Your task to perform on an android device: Open calendar and show me the third week of next month Image 0: 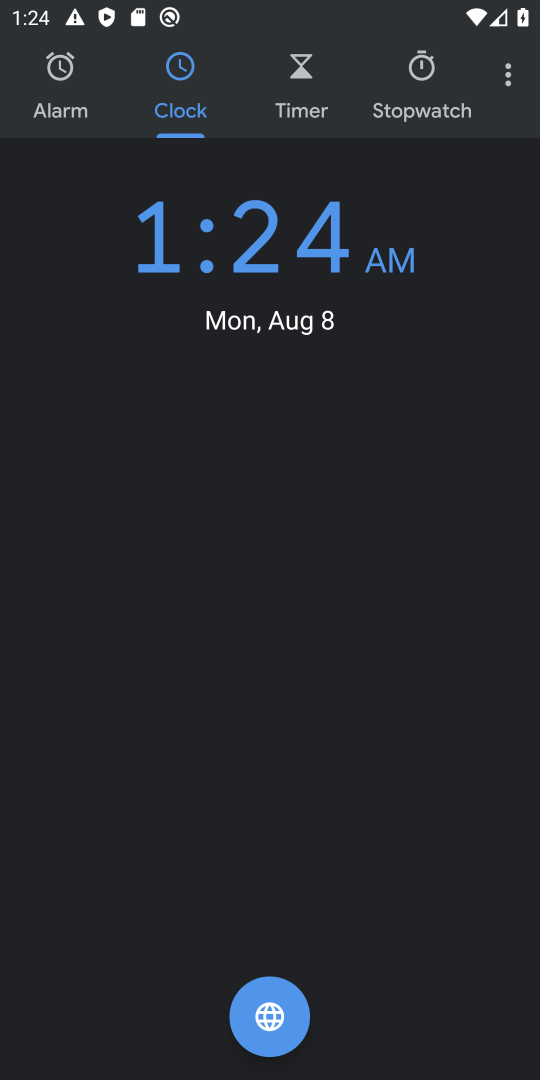
Step 0: press home button
Your task to perform on an android device: Open calendar and show me the third week of next month Image 1: 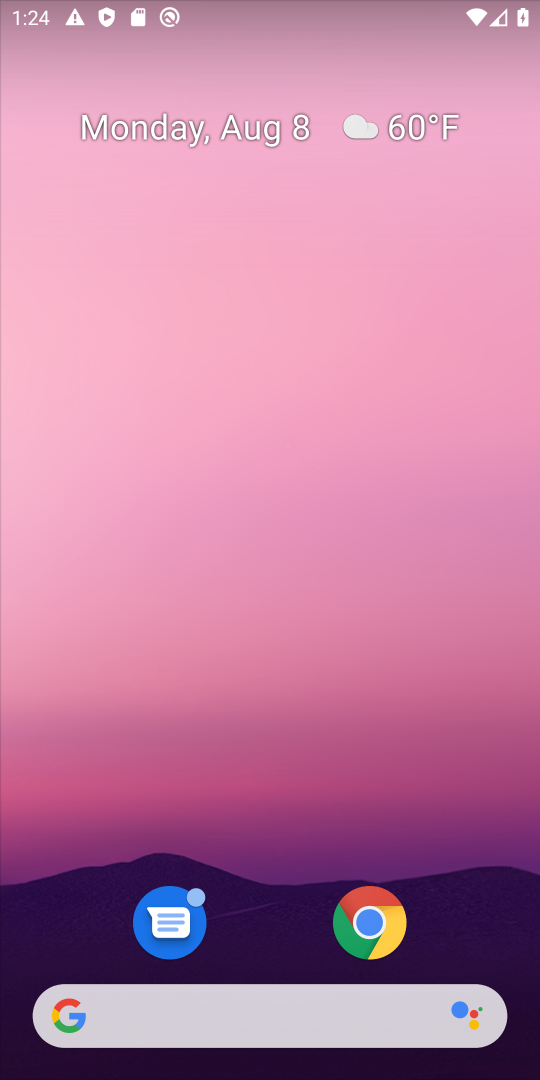
Step 1: drag from (465, 859) to (418, 211)
Your task to perform on an android device: Open calendar and show me the third week of next month Image 2: 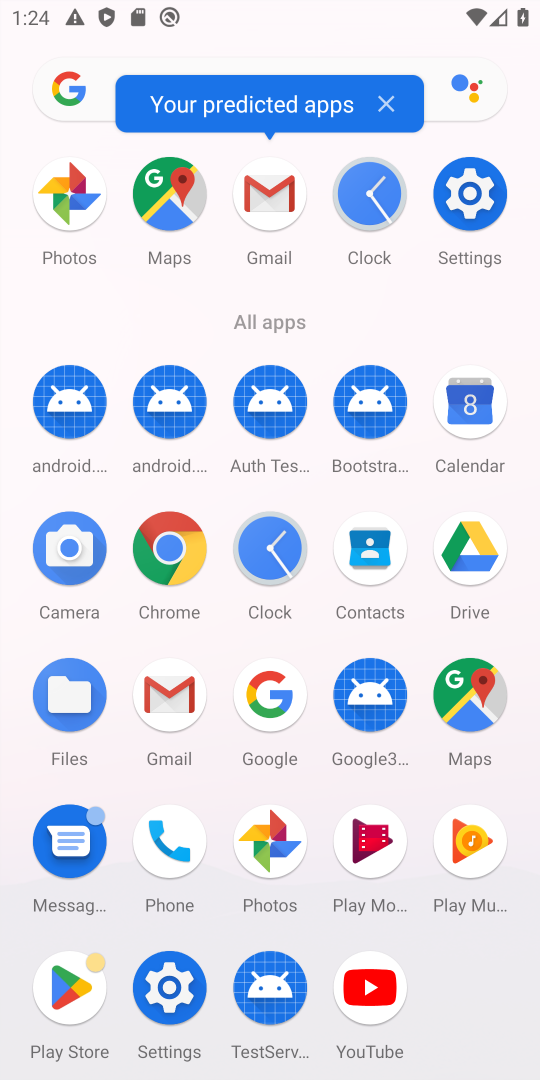
Step 2: click (485, 404)
Your task to perform on an android device: Open calendar and show me the third week of next month Image 3: 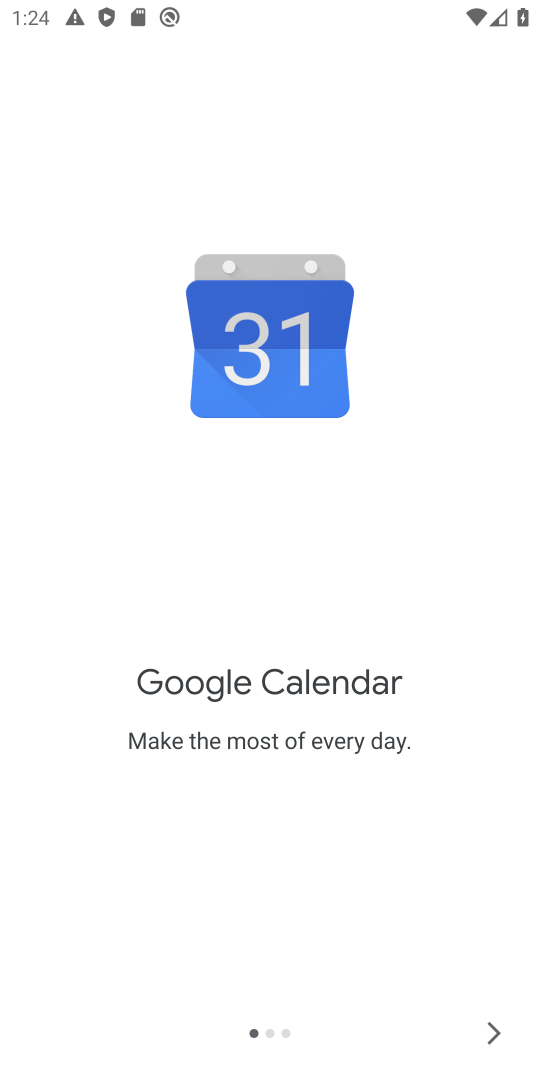
Step 3: click (506, 1033)
Your task to perform on an android device: Open calendar and show me the third week of next month Image 4: 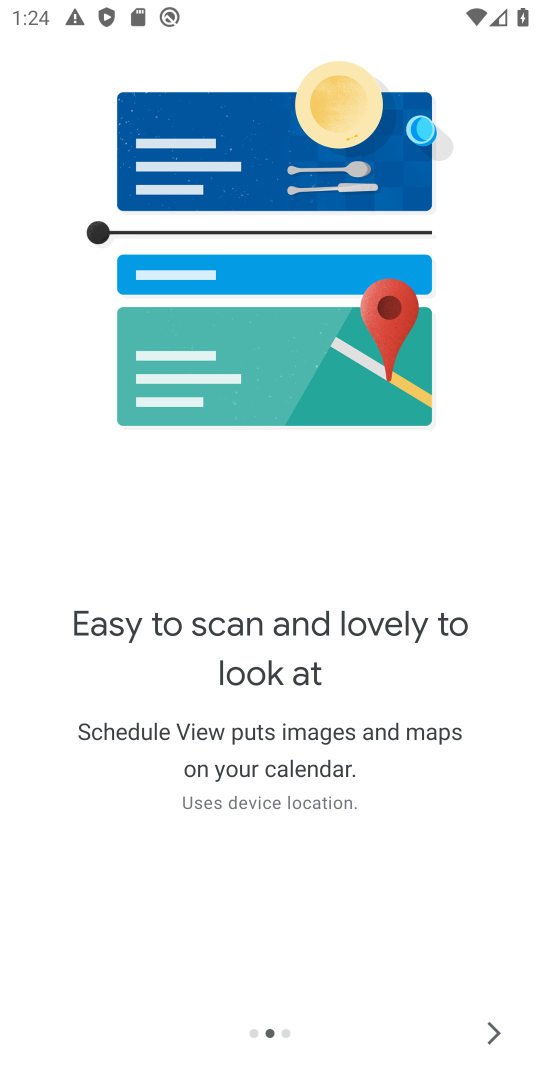
Step 4: click (491, 1038)
Your task to perform on an android device: Open calendar and show me the third week of next month Image 5: 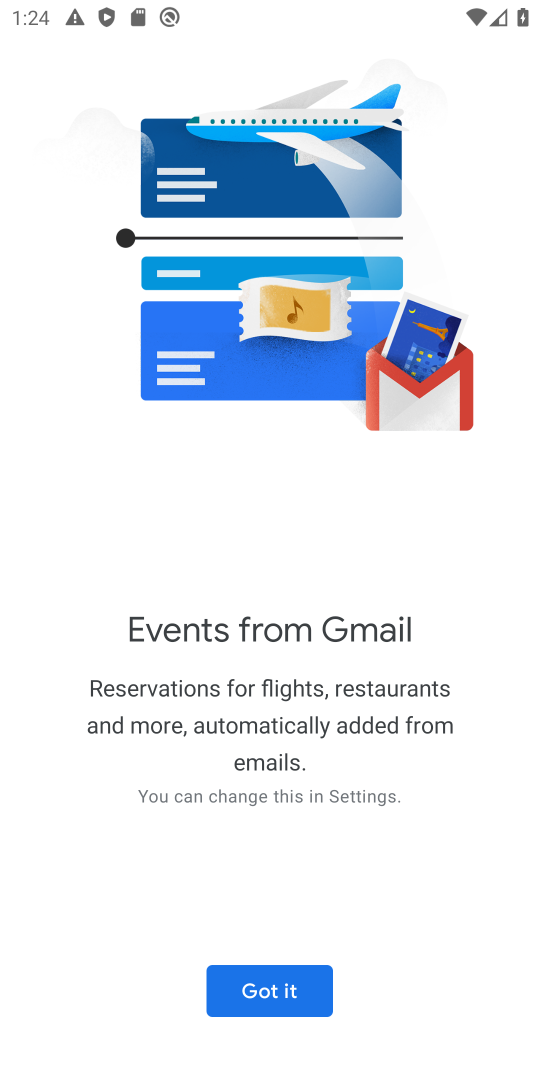
Step 5: click (277, 1001)
Your task to perform on an android device: Open calendar and show me the third week of next month Image 6: 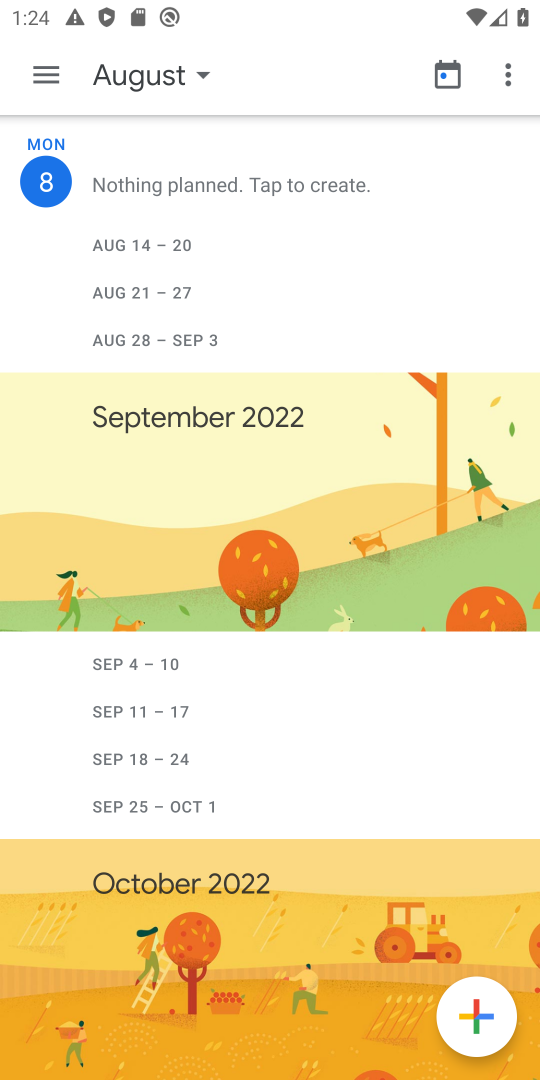
Step 6: click (114, 74)
Your task to perform on an android device: Open calendar and show me the third week of next month Image 7: 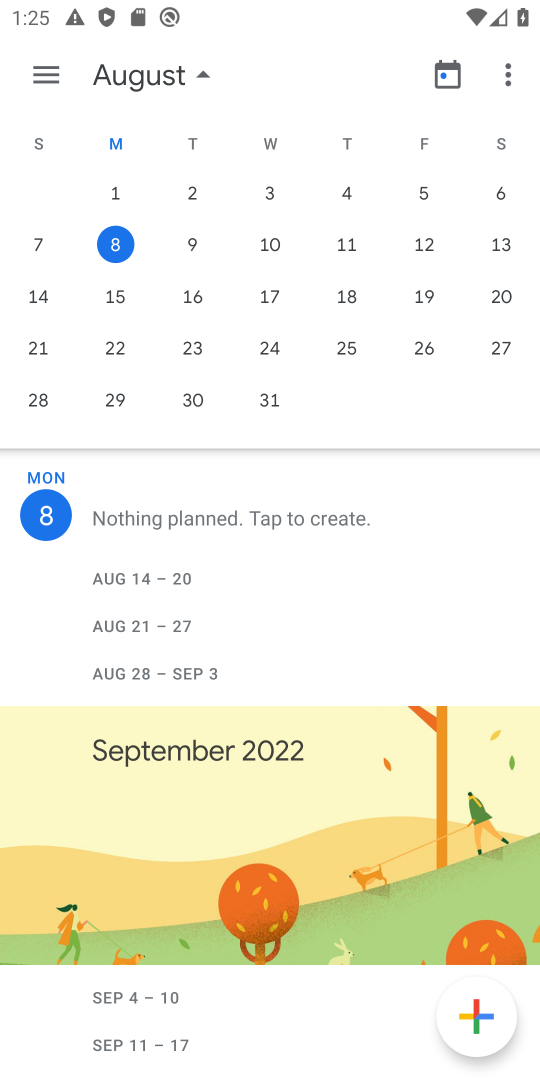
Step 7: drag from (466, 302) to (37, 323)
Your task to perform on an android device: Open calendar and show me the third week of next month Image 8: 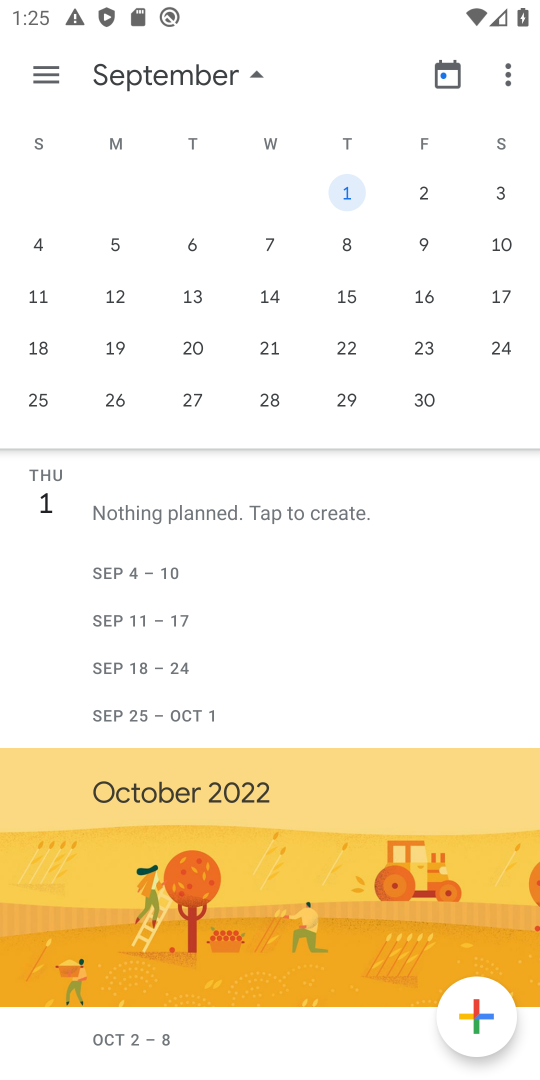
Step 8: click (189, 346)
Your task to perform on an android device: Open calendar and show me the third week of next month Image 9: 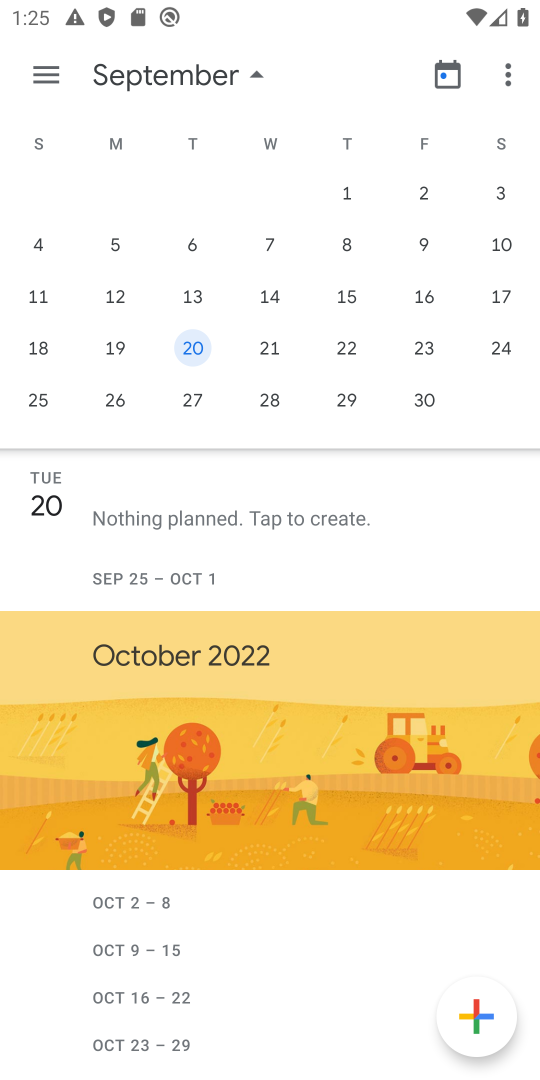
Step 9: click (43, 61)
Your task to perform on an android device: Open calendar and show me the third week of next month Image 10: 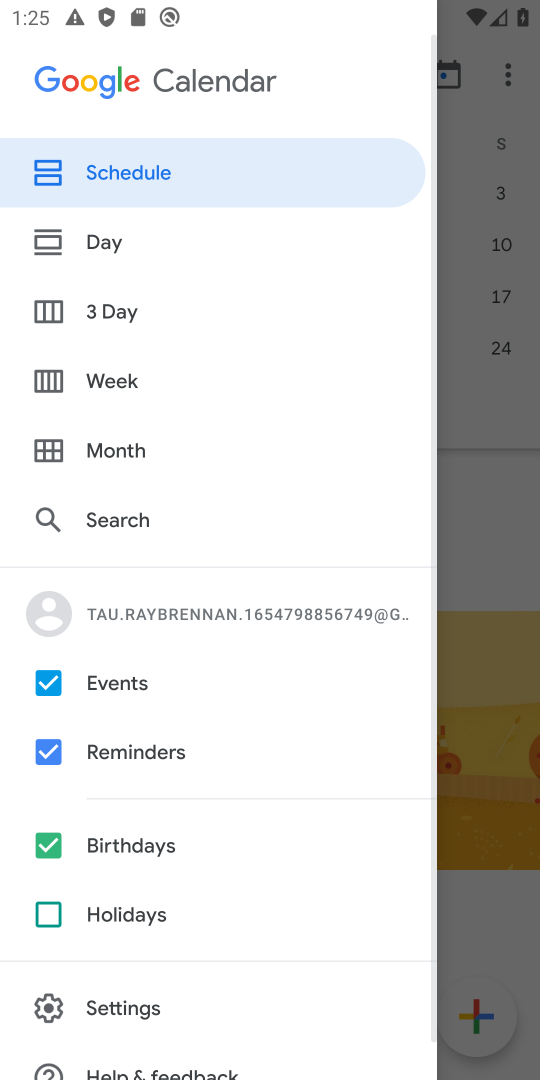
Step 10: click (129, 373)
Your task to perform on an android device: Open calendar and show me the third week of next month Image 11: 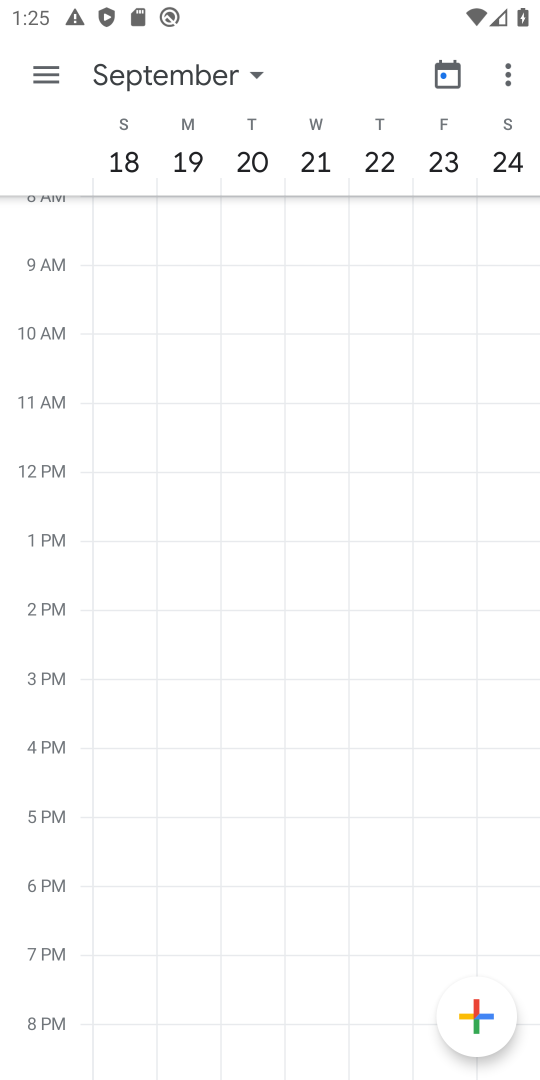
Step 11: click (223, 73)
Your task to perform on an android device: Open calendar and show me the third week of next month Image 12: 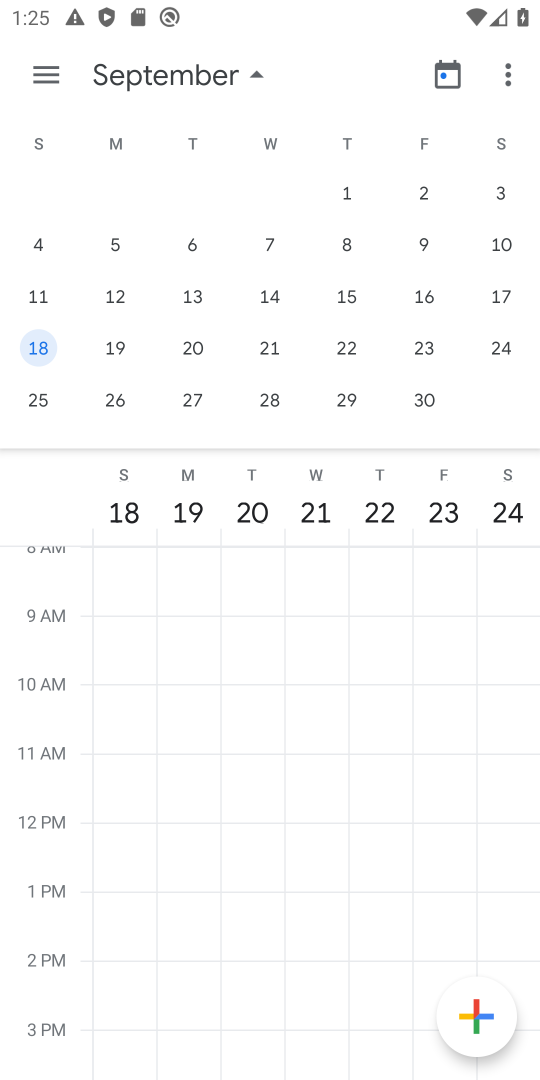
Step 12: click (223, 71)
Your task to perform on an android device: Open calendar and show me the third week of next month Image 13: 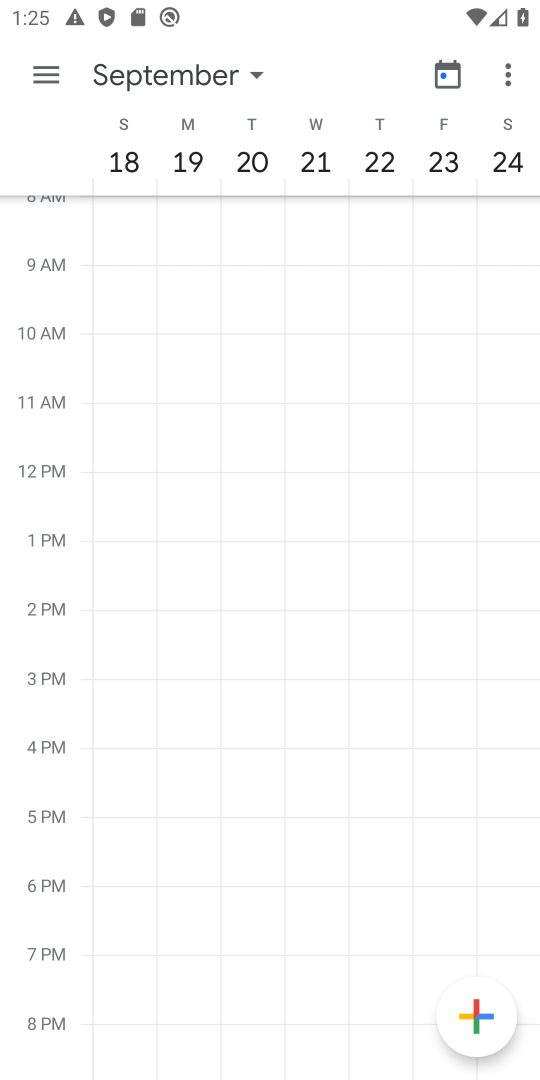
Step 13: task complete